Your task to perform on an android device: Is it going to rain this weekend? Image 0: 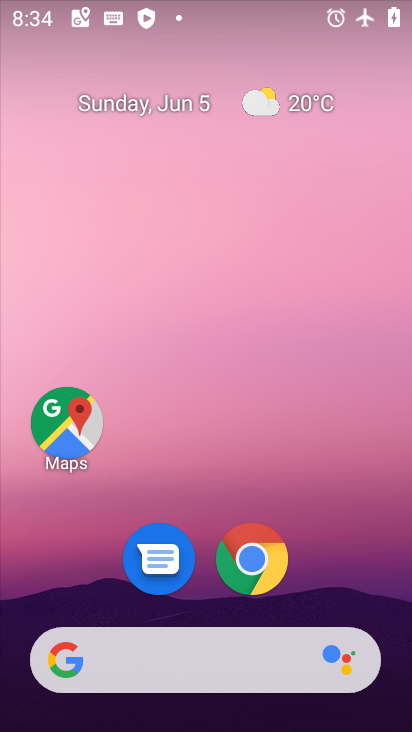
Step 0: click (257, 557)
Your task to perform on an android device: Is it going to rain this weekend? Image 1: 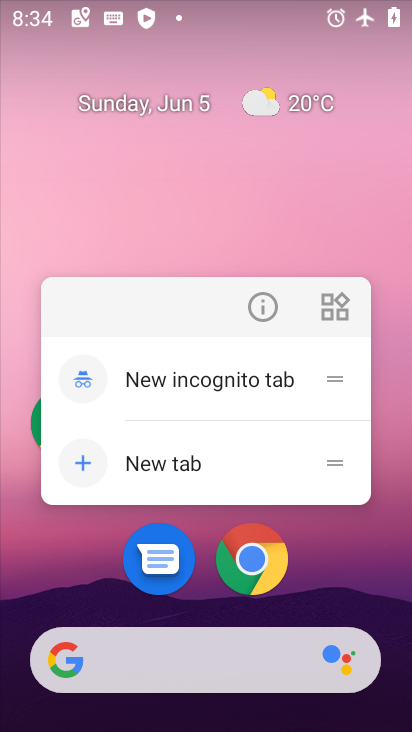
Step 1: click (257, 557)
Your task to perform on an android device: Is it going to rain this weekend? Image 2: 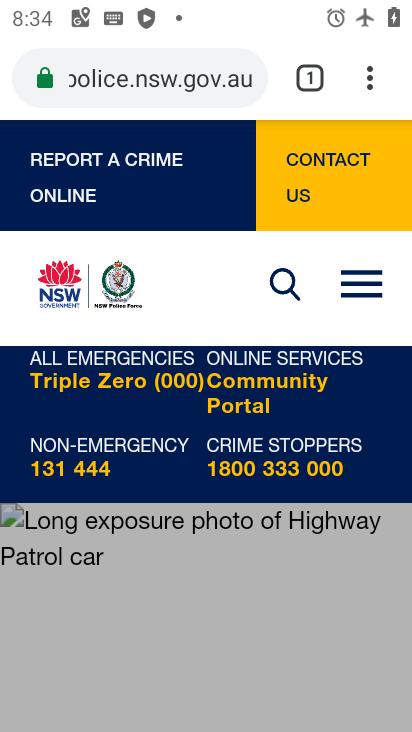
Step 2: click (151, 85)
Your task to perform on an android device: Is it going to rain this weekend? Image 3: 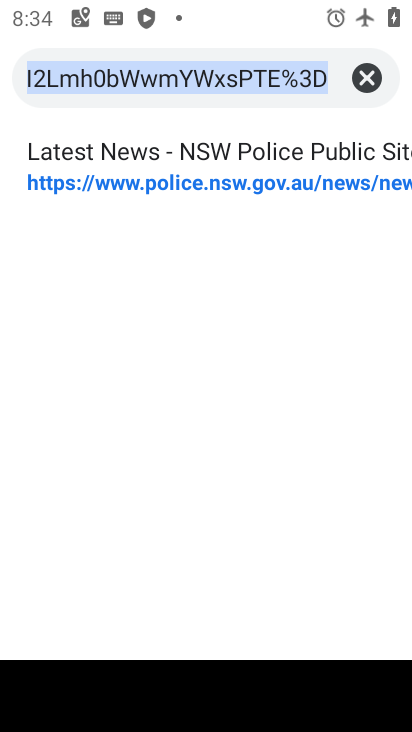
Step 3: type "weather"
Your task to perform on an android device: Is it going to rain this weekend? Image 4: 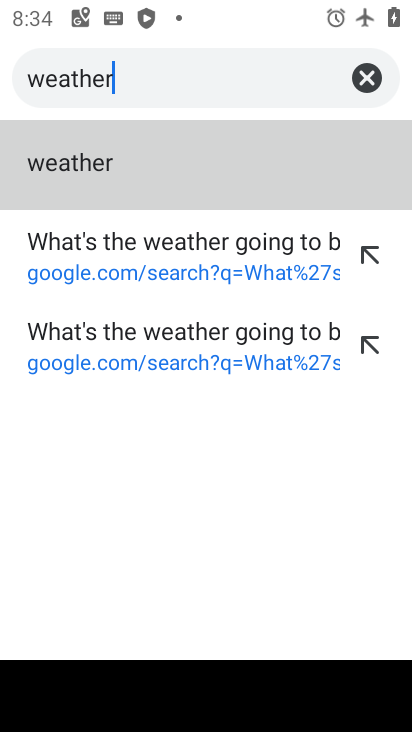
Step 4: click (81, 171)
Your task to perform on an android device: Is it going to rain this weekend? Image 5: 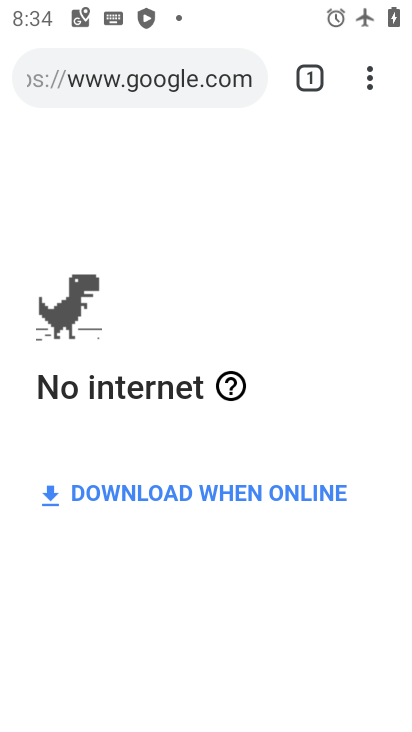
Step 5: task complete